Your task to perform on an android device: choose inbox layout in the gmail app Image 0: 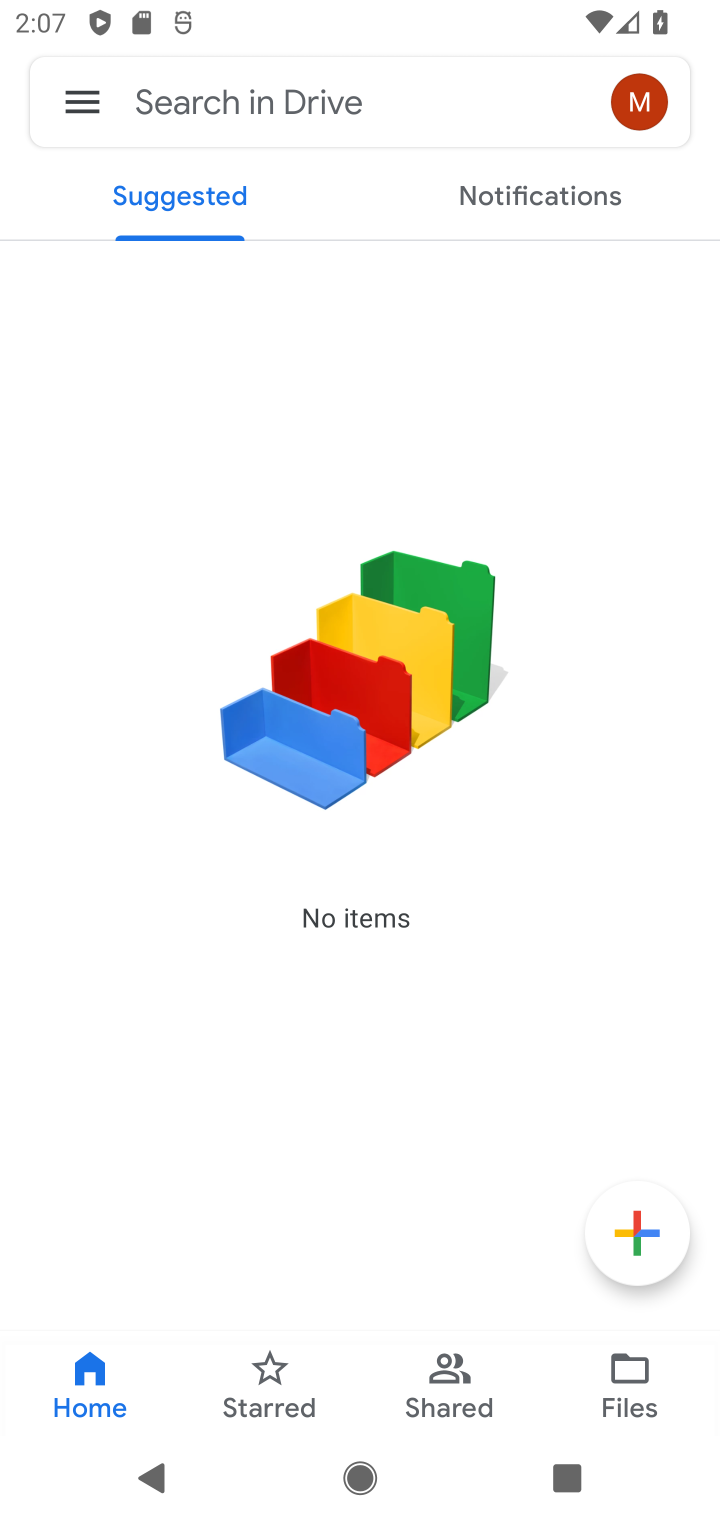
Step 0: press home button
Your task to perform on an android device: choose inbox layout in the gmail app Image 1: 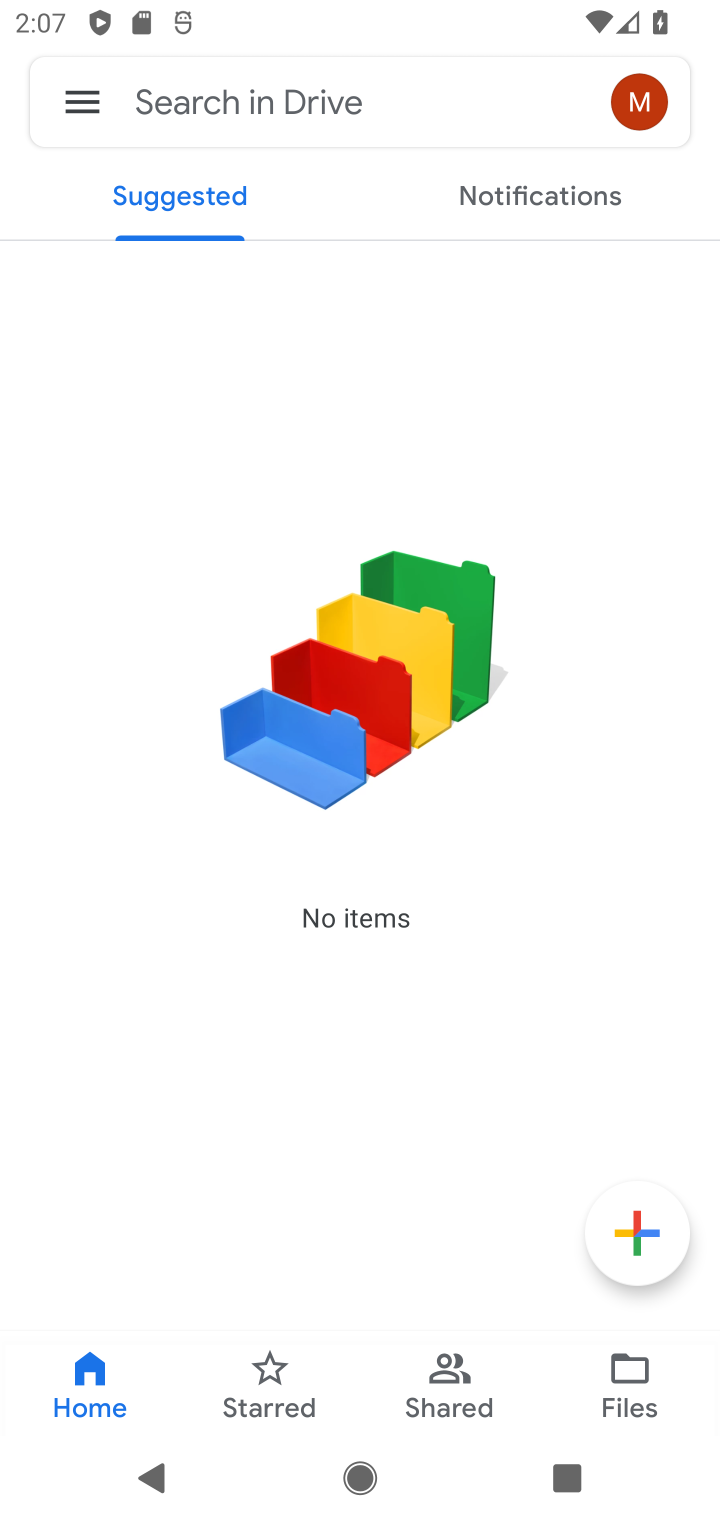
Step 1: drag from (312, 741) to (206, 115)
Your task to perform on an android device: choose inbox layout in the gmail app Image 2: 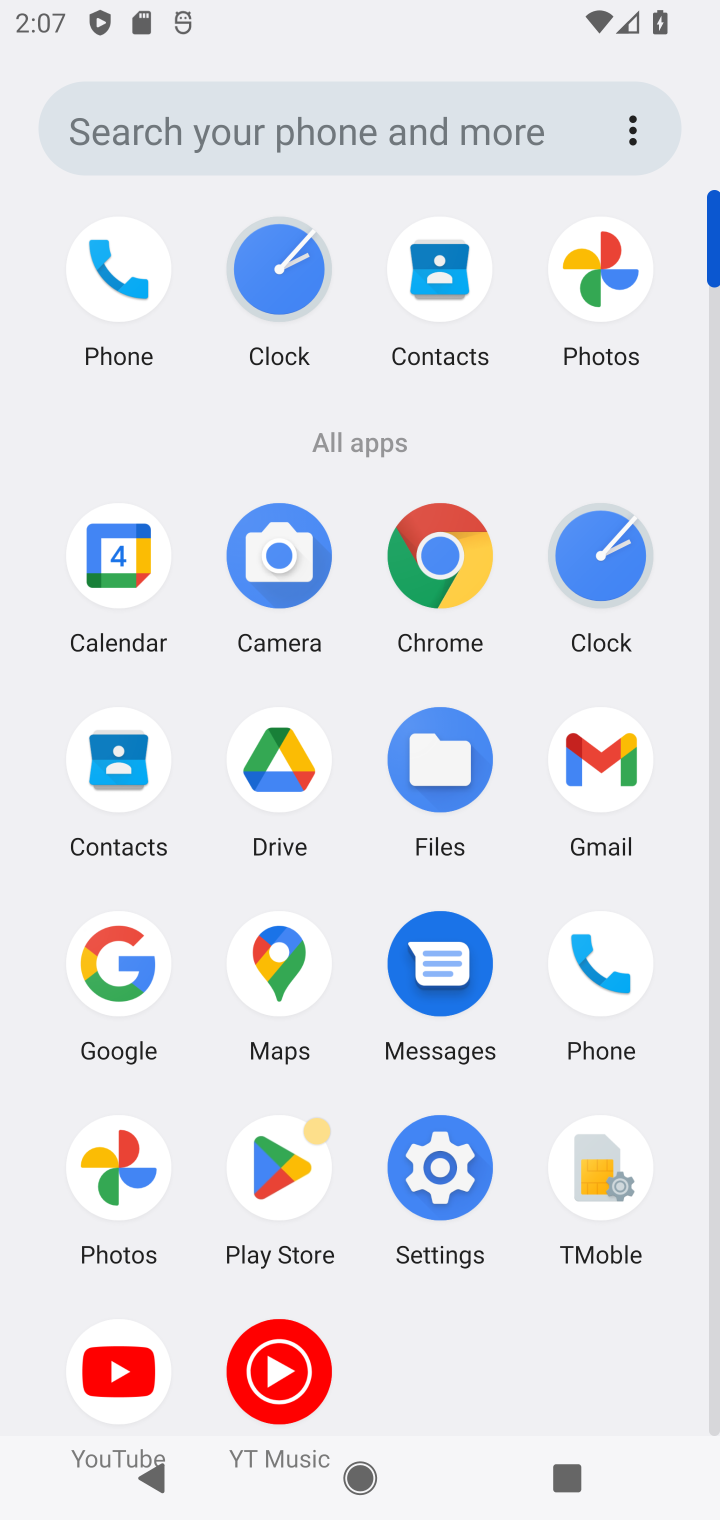
Step 2: click (608, 764)
Your task to perform on an android device: choose inbox layout in the gmail app Image 3: 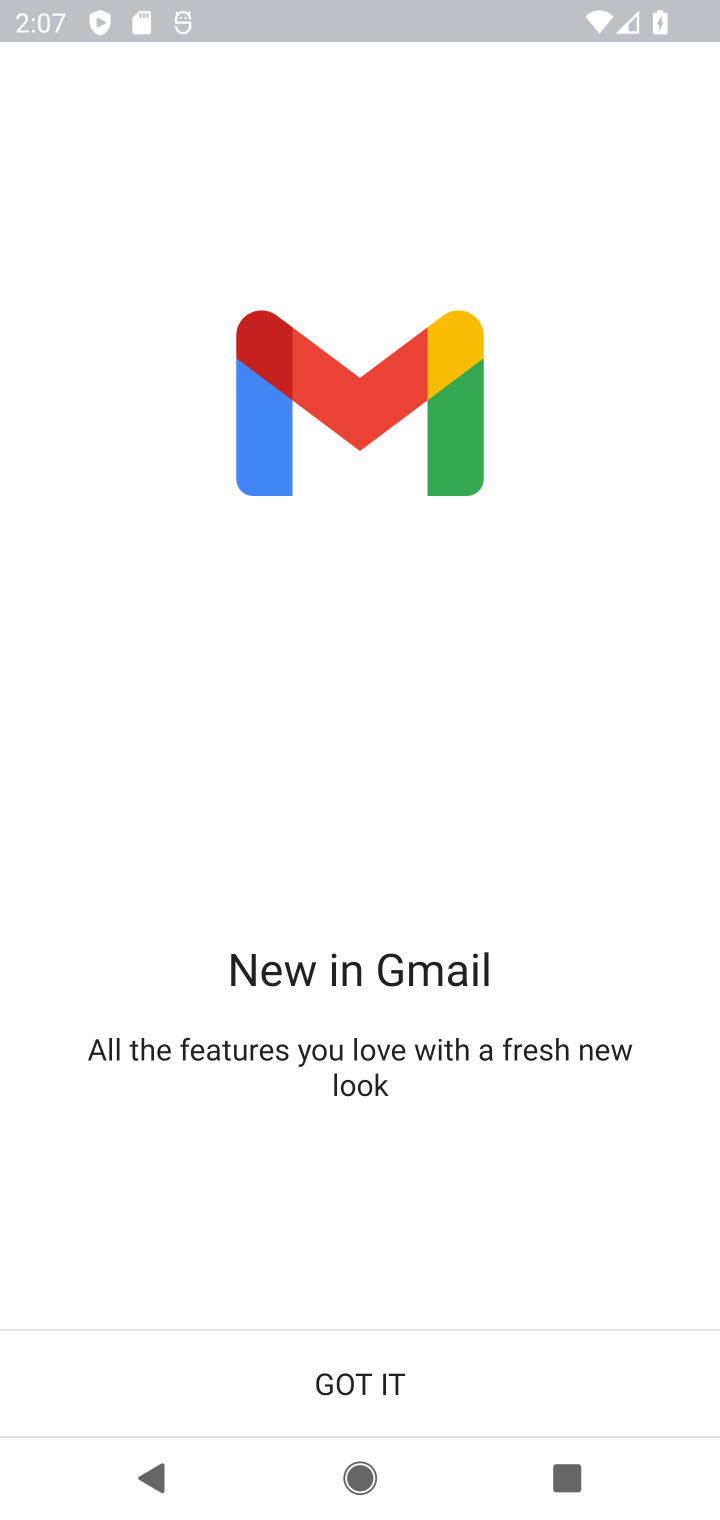
Step 3: click (296, 1387)
Your task to perform on an android device: choose inbox layout in the gmail app Image 4: 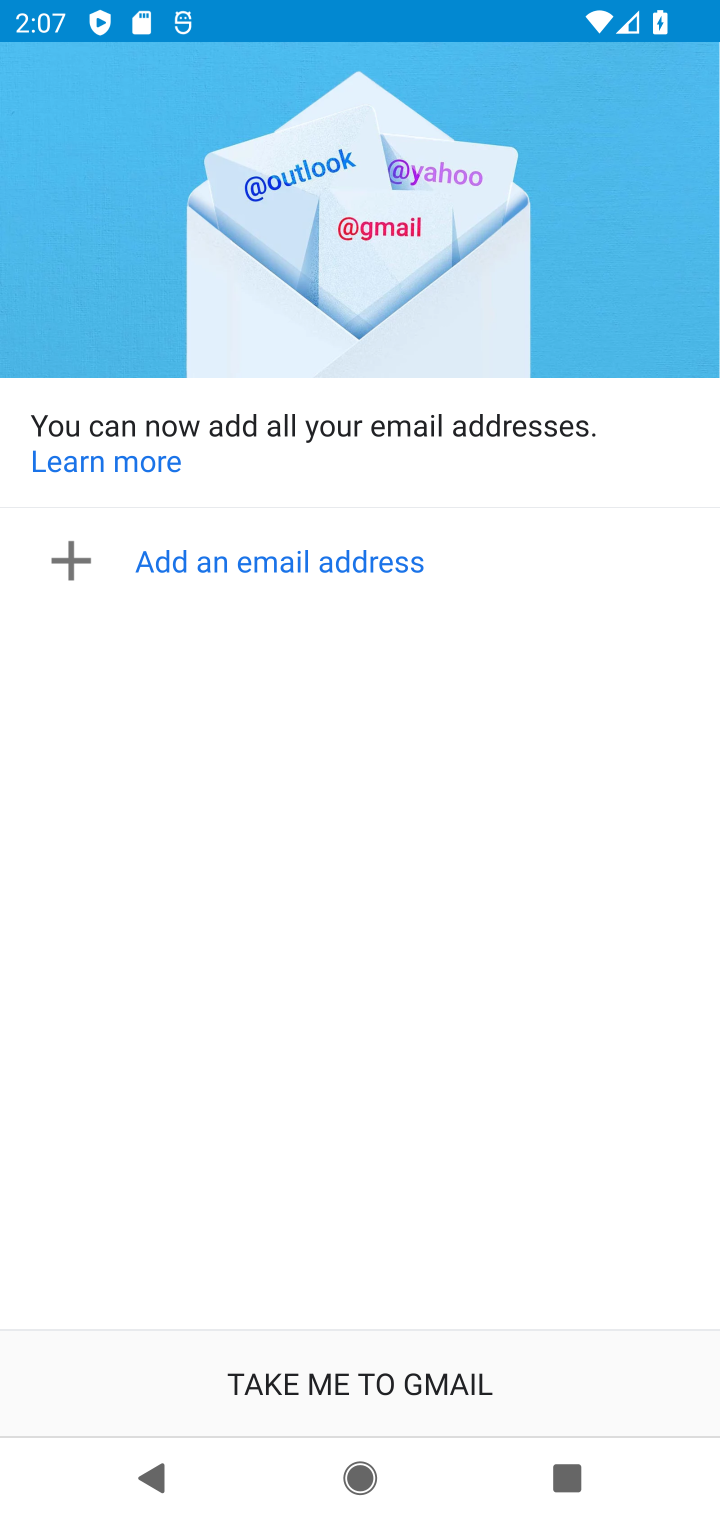
Step 4: click (299, 1385)
Your task to perform on an android device: choose inbox layout in the gmail app Image 5: 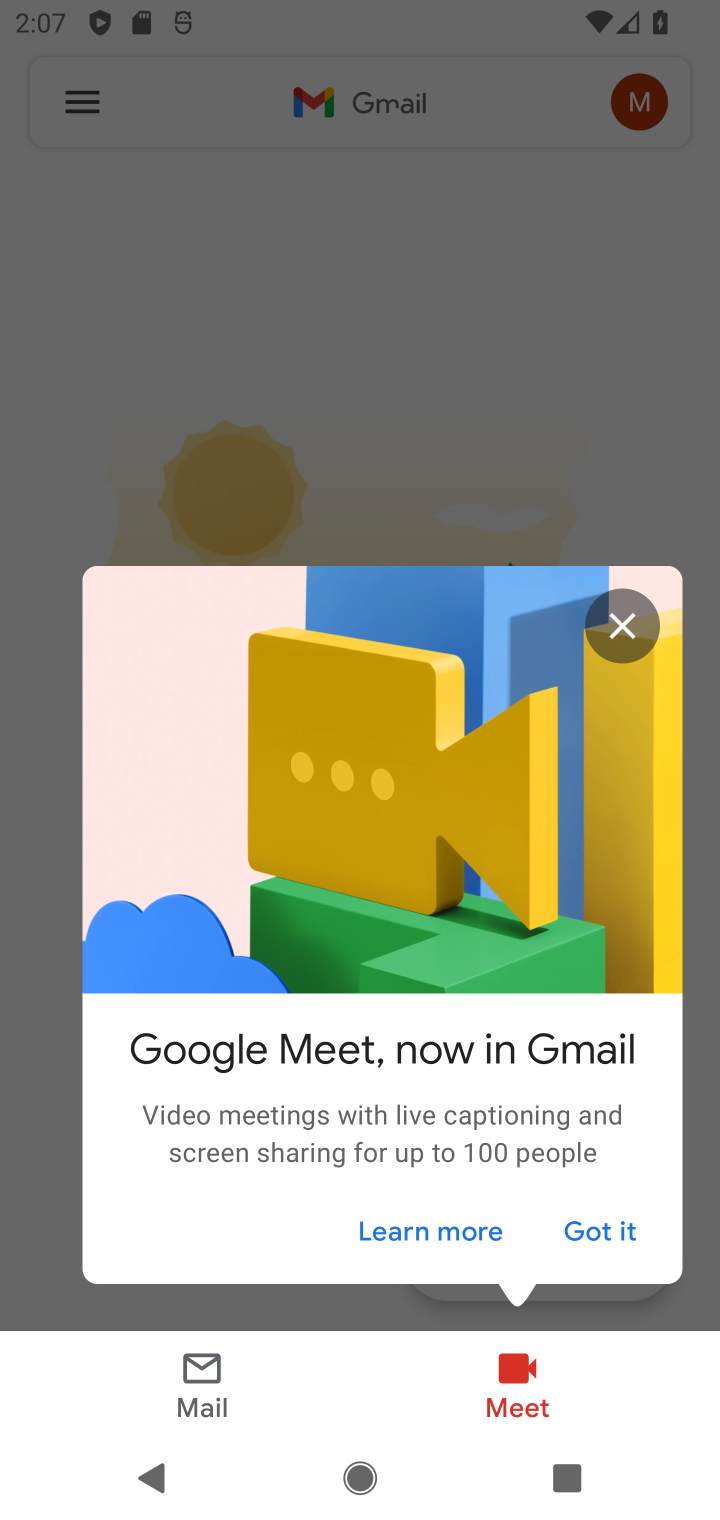
Step 5: task complete